Your task to perform on an android device: set the timer Image 0: 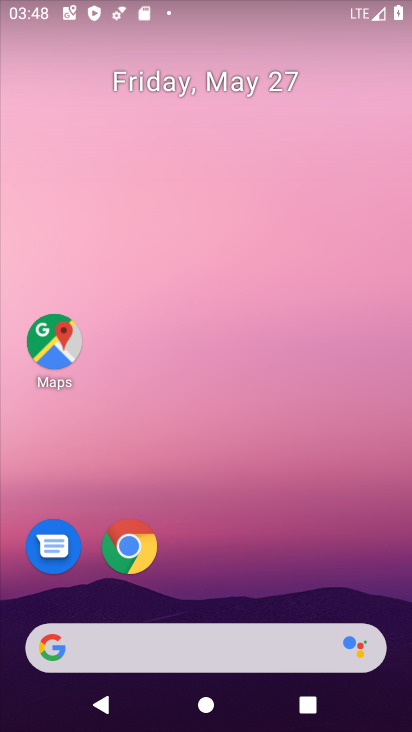
Step 0: drag from (373, 608) to (312, 186)
Your task to perform on an android device: set the timer Image 1: 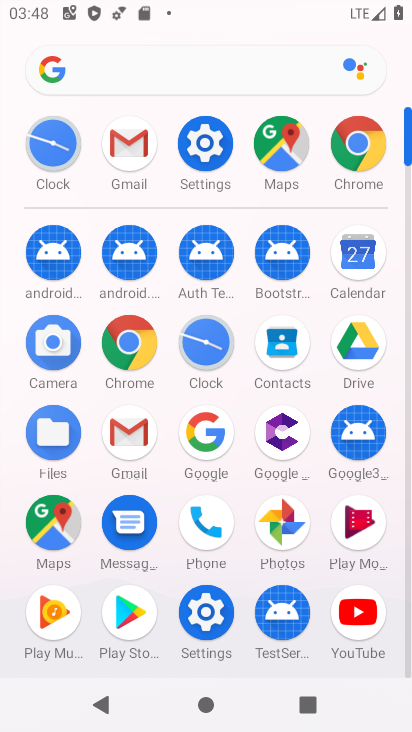
Step 1: click (198, 350)
Your task to perform on an android device: set the timer Image 2: 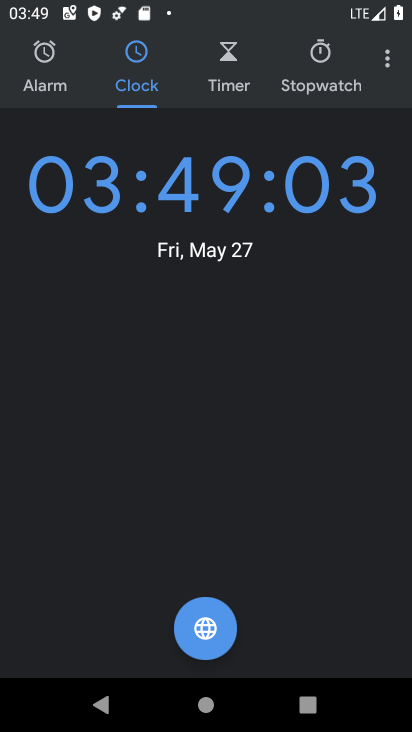
Step 2: click (310, 63)
Your task to perform on an android device: set the timer Image 3: 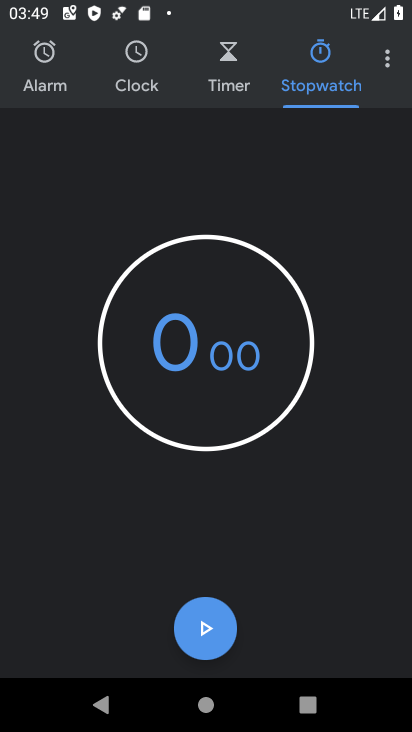
Step 3: click (213, 625)
Your task to perform on an android device: set the timer Image 4: 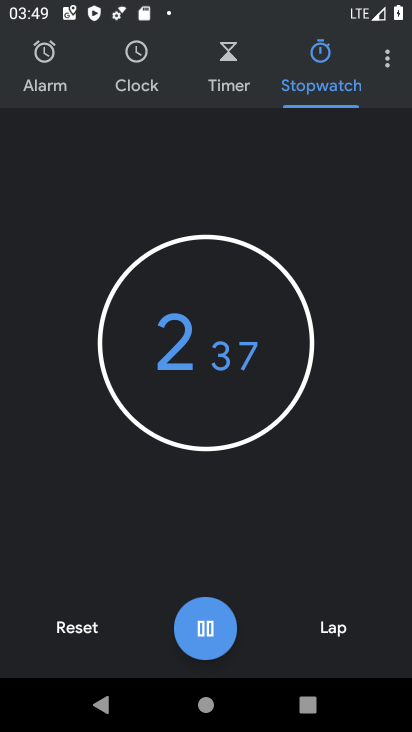
Step 4: task complete